Your task to perform on an android device: open sync settings in chrome Image 0: 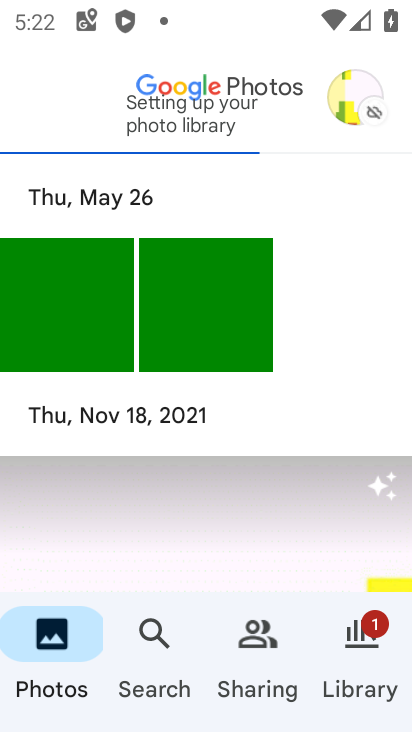
Step 0: press home button
Your task to perform on an android device: open sync settings in chrome Image 1: 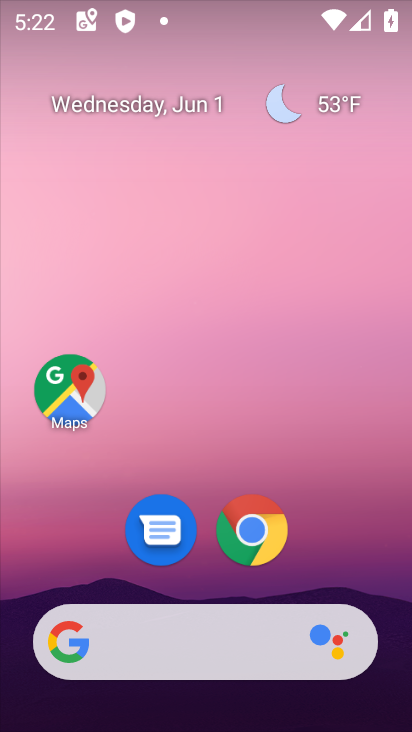
Step 1: click (259, 528)
Your task to perform on an android device: open sync settings in chrome Image 2: 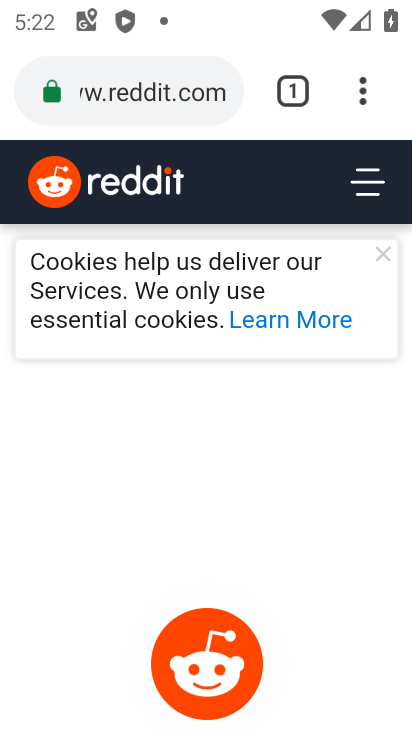
Step 2: click (366, 94)
Your task to perform on an android device: open sync settings in chrome Image 3: 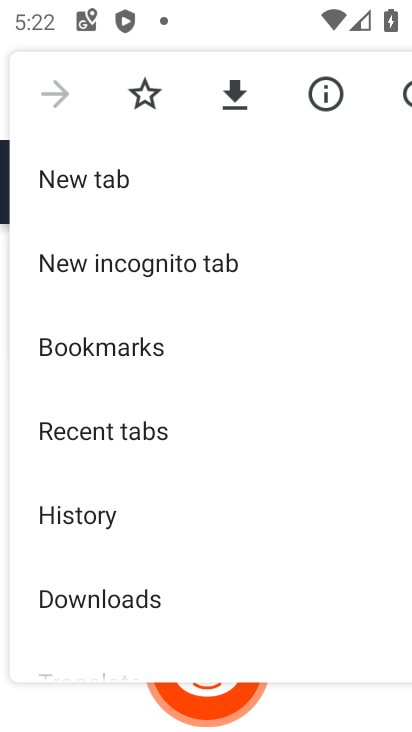
Step 3: drag from (165, 579) to (197, 263)
Your task to perform on an android device: open sync settings in chrome Image 4: 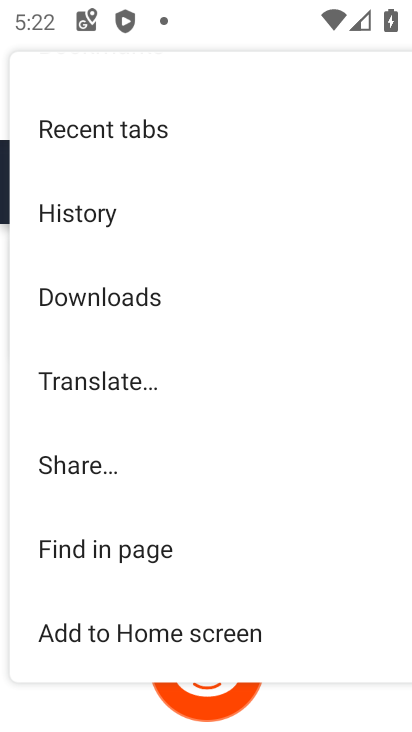
Step 4: drag from (172, 625) to (185, 425)
Your task to perform on an android device: open sync settings in chrome Image 5: 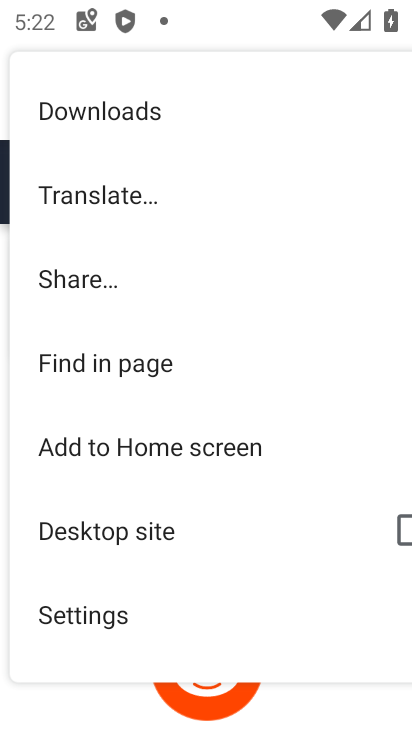
Step 5: click (118, 610)
Your task to perform on an android device: open sync settings in chrome Image 6: 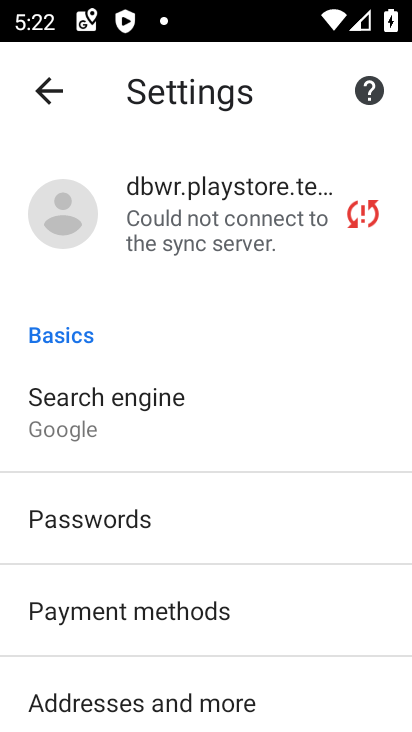
Step 6: click (183, 223)
Your task to perform on an android device: open sync settings in chrome Image 7: 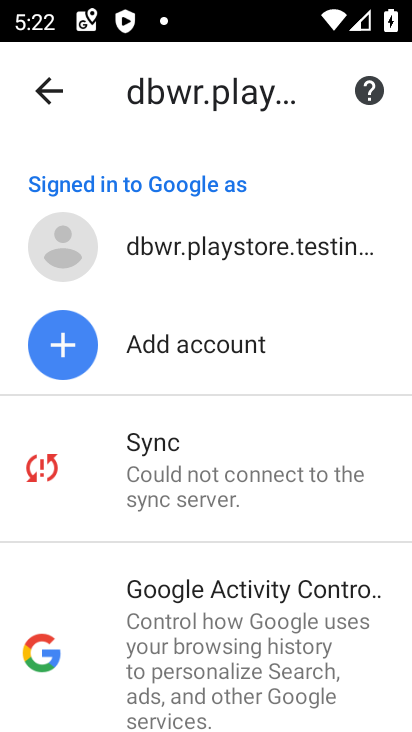
Step 7: click (168, 481)
Your task to perform on an android device: open sync settings in chrome Image 8: 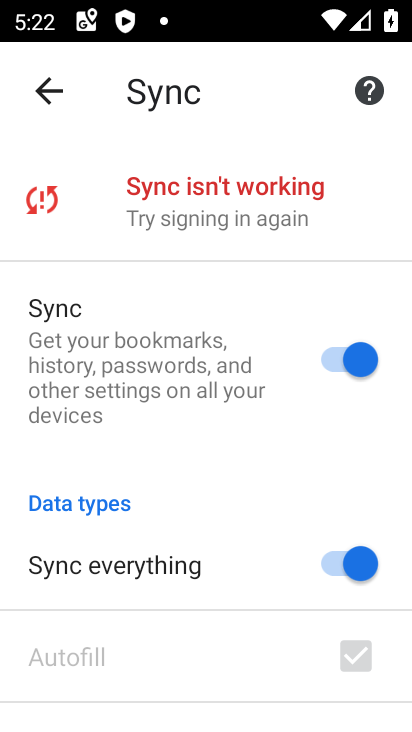
Step 8: task complete